Your task to perform on an android device: change keyboard looks Image 0: 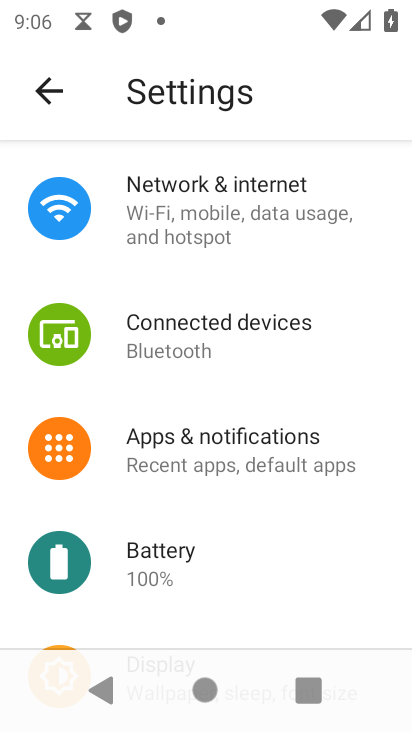
Step 0: press home button
Your task to perform on an android device: change keyboard looks Image 1: 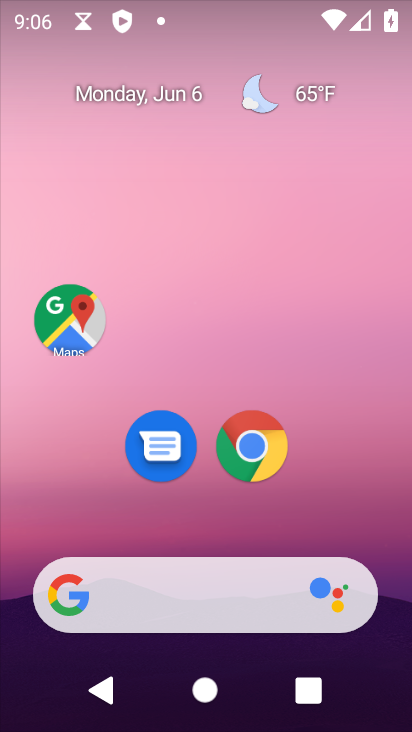
Step 1: drag from (181, 547) to (184, 236)
Your task to perform on an android device: change keyboard looks Image 2: 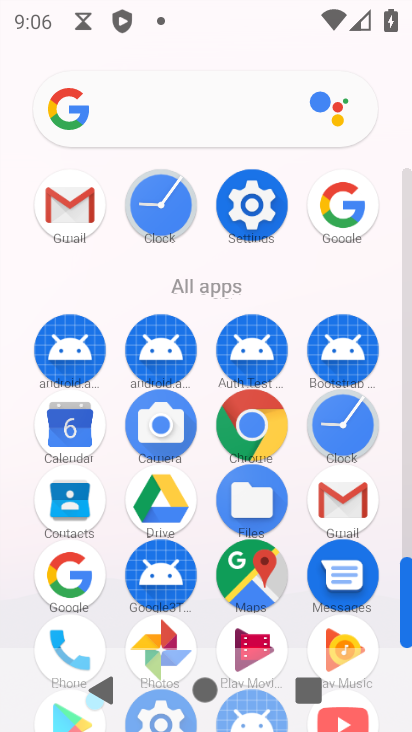
Step 2: click (251, 210)
Your task to perform on an android device: change keyboard looks Image 3: 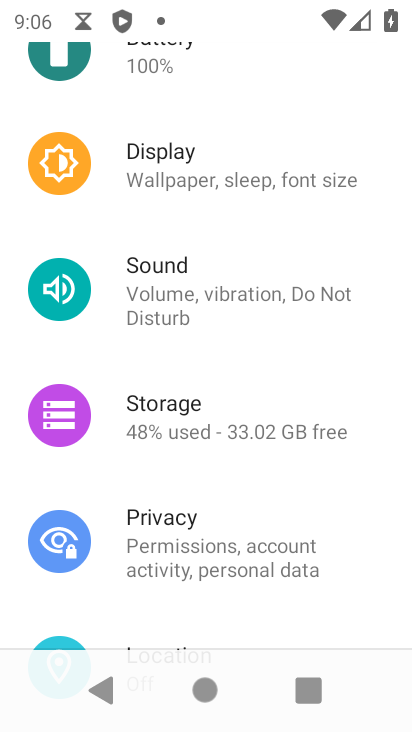
Step 3: drag from (202, 618) to (201, 189)
Your task to perform on an android device: change keyboard looks Image 4: 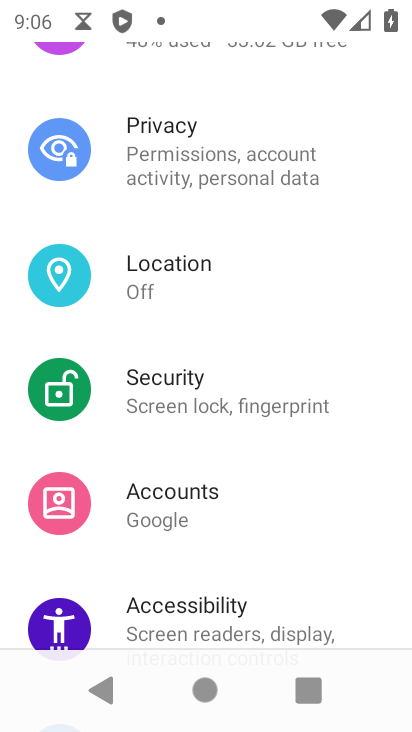
Step 4: drag from (207, 601) to (207, 194)
Your task to perform on an android device: change keyboard looks Image 5: 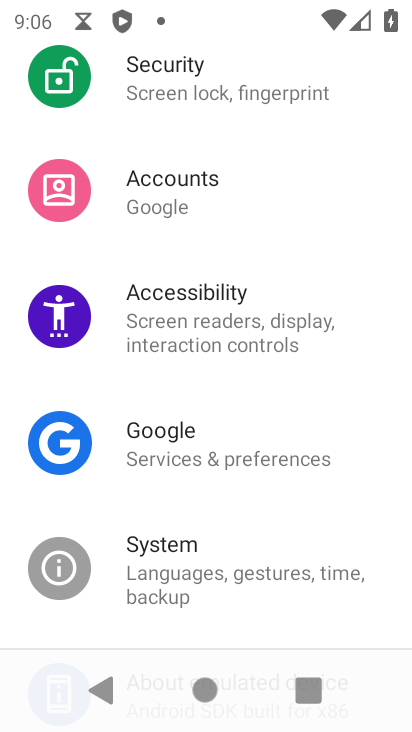
Step 5: drag from (191, 625) to (191, 273)
Your task to perform on an android device: change keyboard looks Image 6: 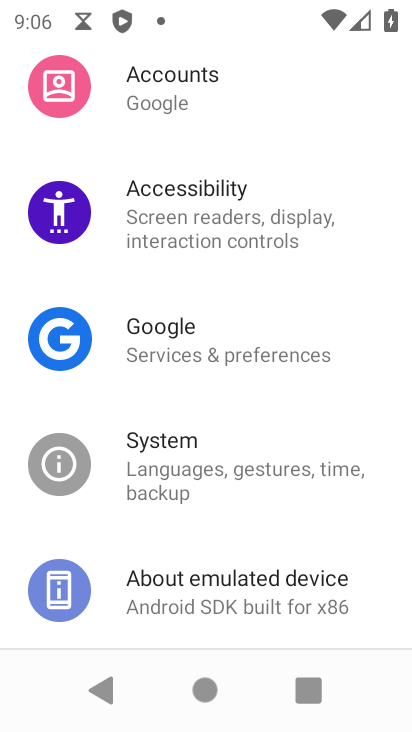
Step 6: click (193, 464)
Your task to perform on an android device: change keyboard looks Image 7: 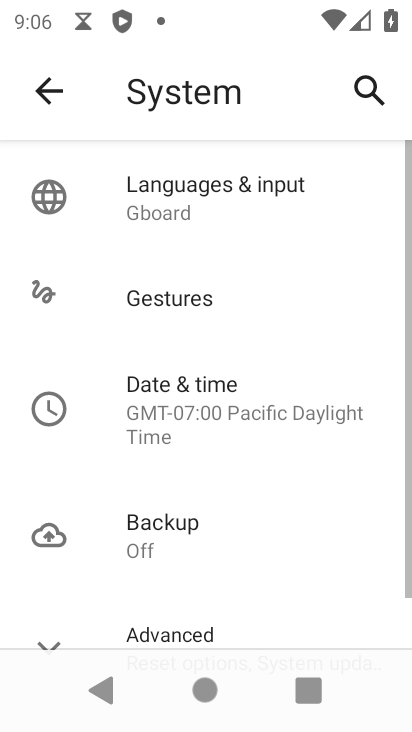
Step 7: click (192, 203)
Your task to perform on an android device: change keyboard looks Image 8: 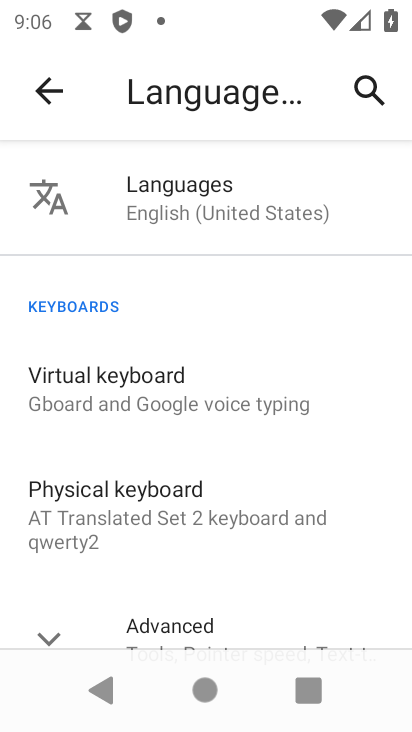
Step 8: click (140, 401)
Your task to perform on an android device: change keyboard looks Image 9: 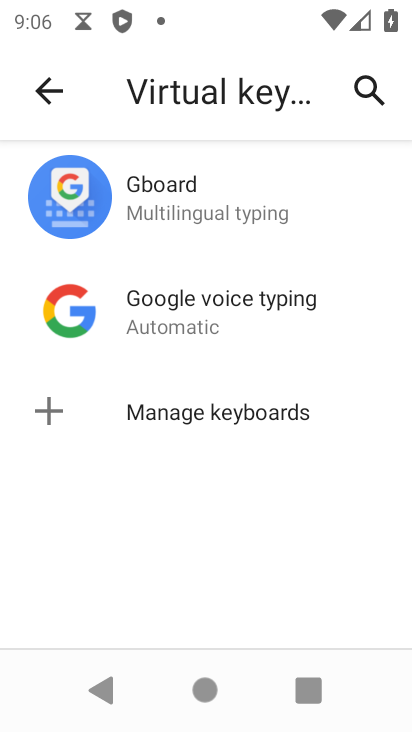
Step 9: click (165, 199)
Your task to perform on an android device: change keyboard looks Image 10: 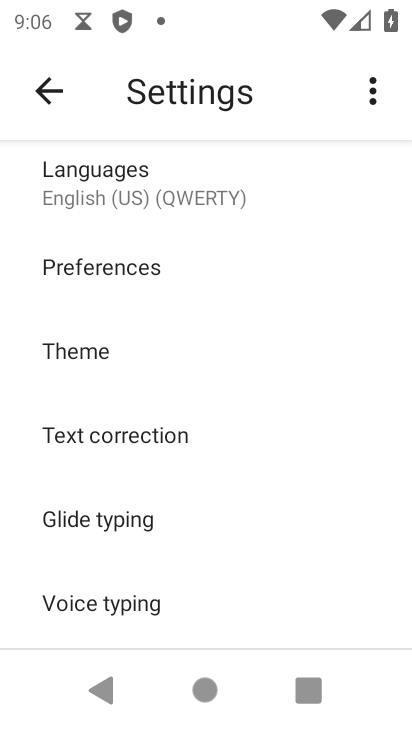
Step 10: click (105, 360)
Your task to perform on an android device: change keyboard looks Image 11: 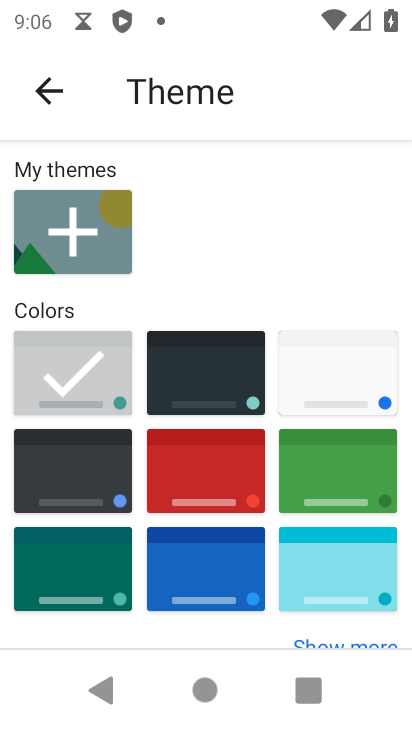
Step 11: click (192, 480)
Your task to perform on an android device: change keyboard looks Image 12: 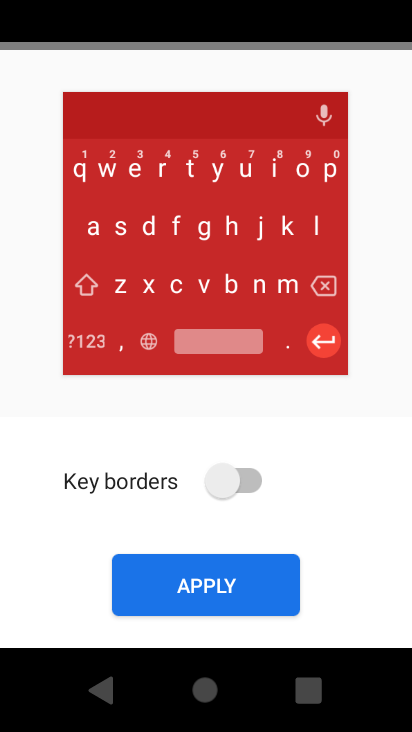
Step 12: click (172, 591)
Your task to perform on an android device: change keyboard looks Image 13: 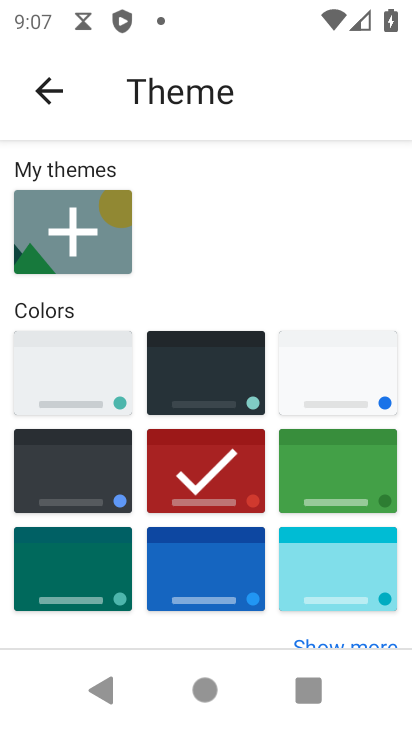
Step 13: task complete